Your task to perform on an android device: Open Chrome and go to settings Image 0: 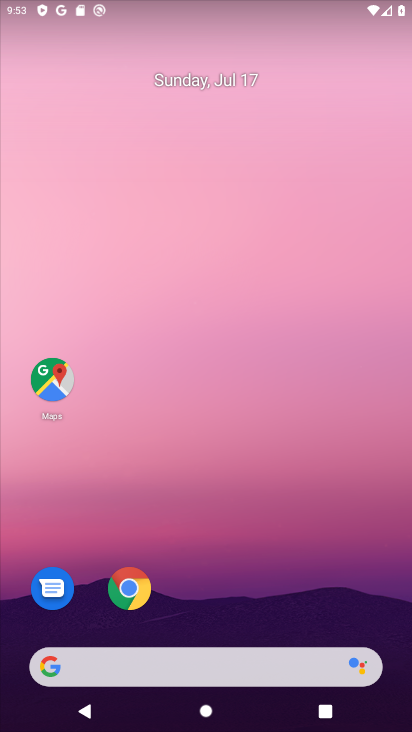
Step 0: click (142, 603)
Your task to perform on an android device: Open Chrome and go to settings Image 1: 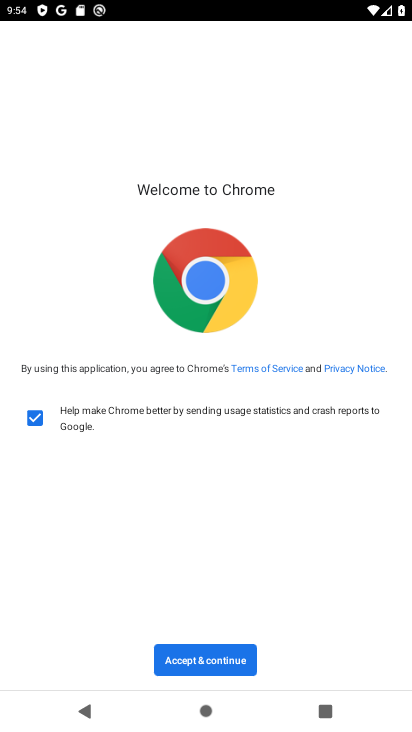
Step 1: click (199, 664)
Your task to perform on an android device: Open Chrome and go to settings Image 2: 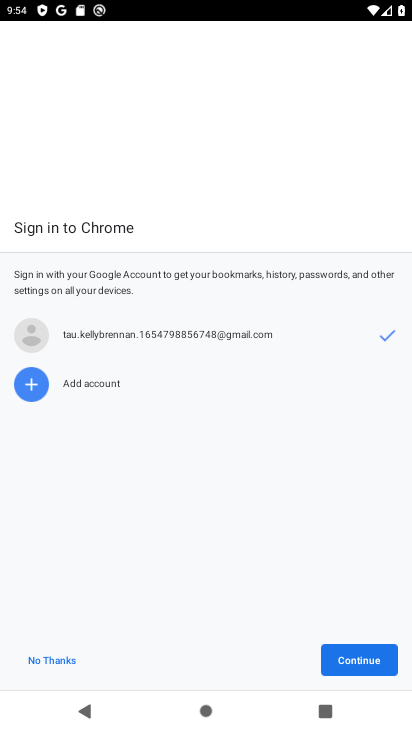
Step 2: click (364, 653)
Your task to perform on an android device: Open Chrome and go to settings Image 3: 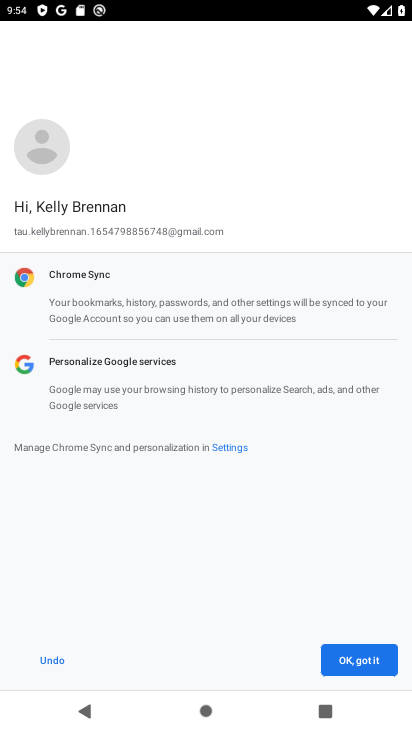
Step 3: click (373, 649)
Your task to perform on an android device: Open Chrome and go to settings Image 4: 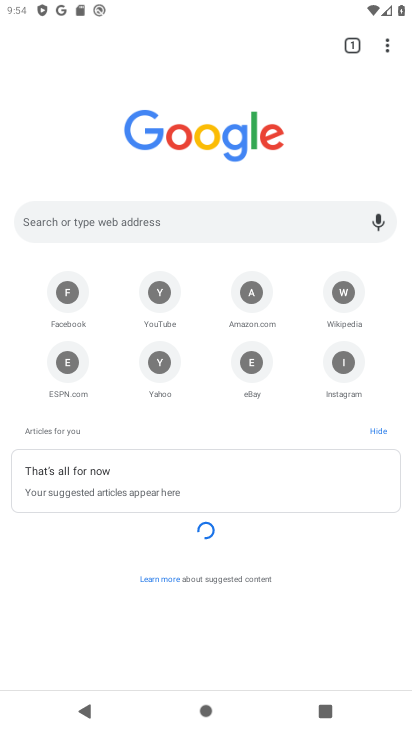
Step 4: task complete